Your task to perform on an android device: choose inbox layout in the gmail app Image 0: 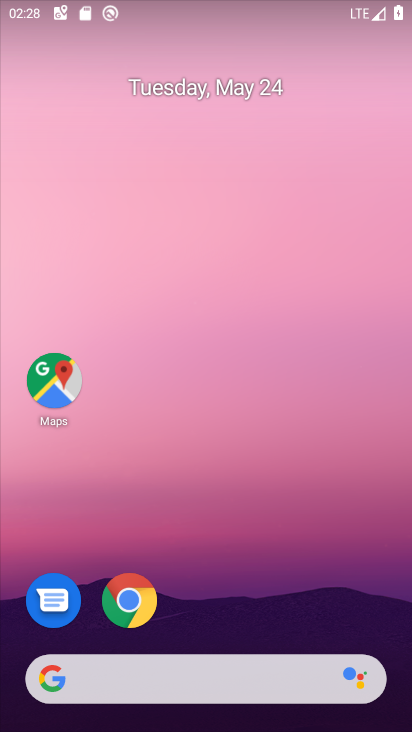
Step 0: drag from (272, 507) to (259, 218)
Your task to perform on an android device: choose inbox layout in the gmail app Image 1: 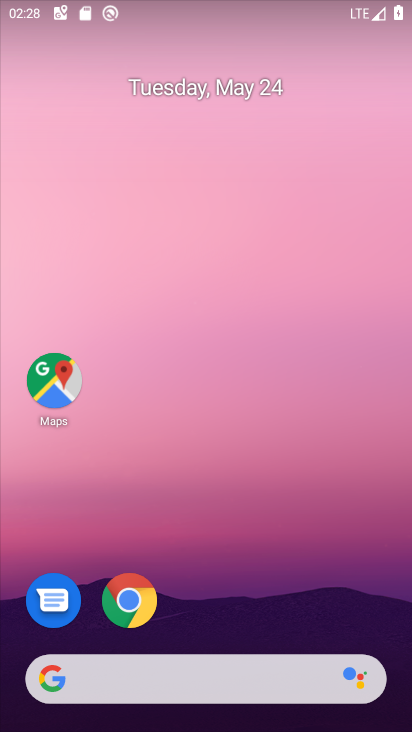
Step 1: drag from (232, 575) to (226, 198)
Your task to perform on an android device: choose inbox layout in the gmail app Image 2: 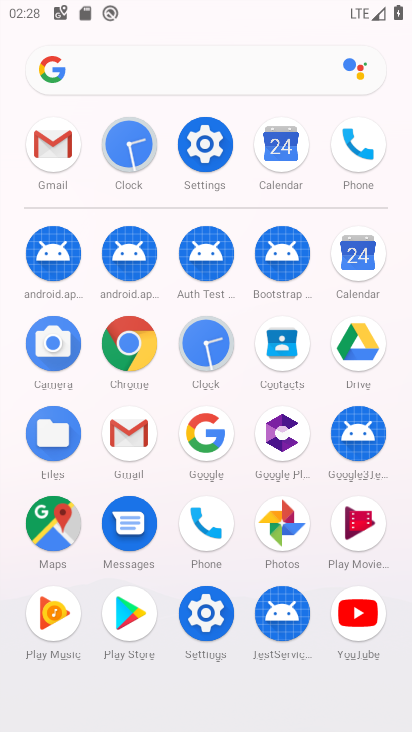
Step 2: click (121, 153)
Your task to perform on an android device: choose inbox layout in the gmail app Image 3: 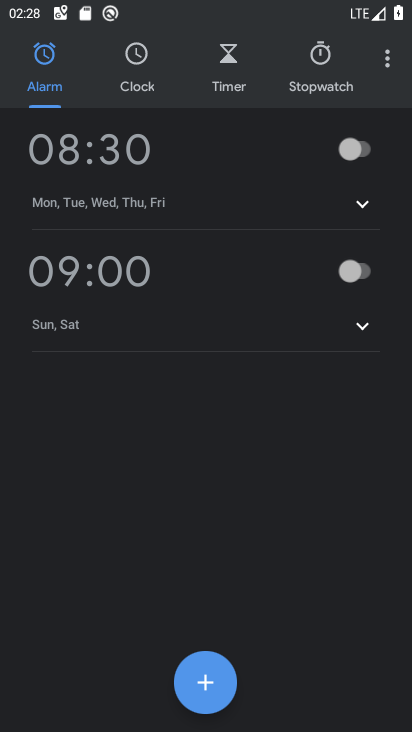
Step 3: press home button
Your task to perform on an android device: choose inbox layout in the gmail app Image 4: 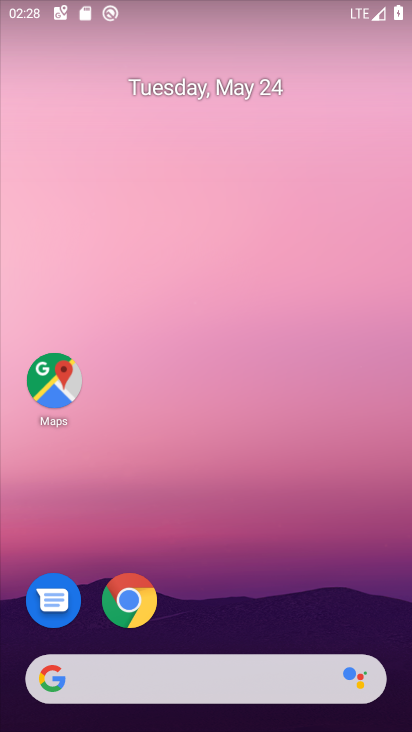
Step 4: drag from (246, 585) to (248, 350)
Your task to perform on an android device: choose inbox layout in the gmail app Image 5: 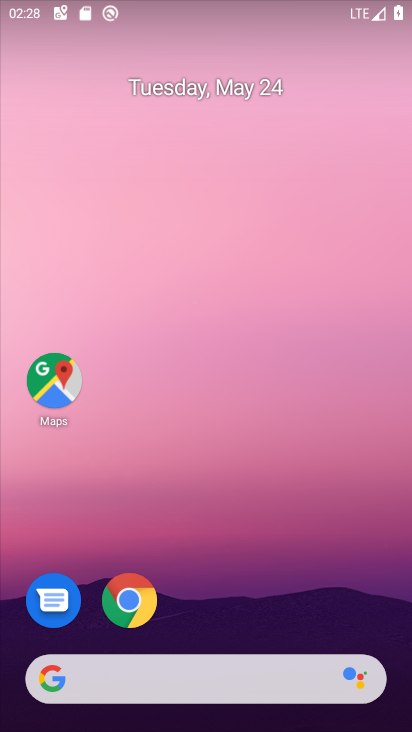
Step 5: drag from (267, 539) to (336, 99)
Your task to perform on an android device: choose inbox layout in the gmail app Image 6: 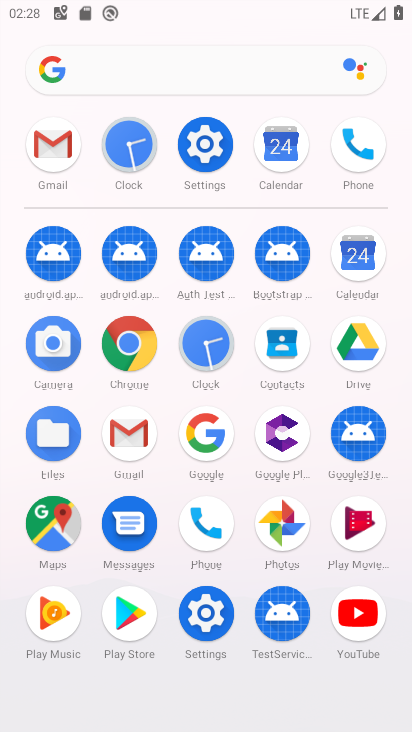
Step 6: click (41, 158)
Your task to perform on an android device: choose inbox layout in the gmail app Image 7: 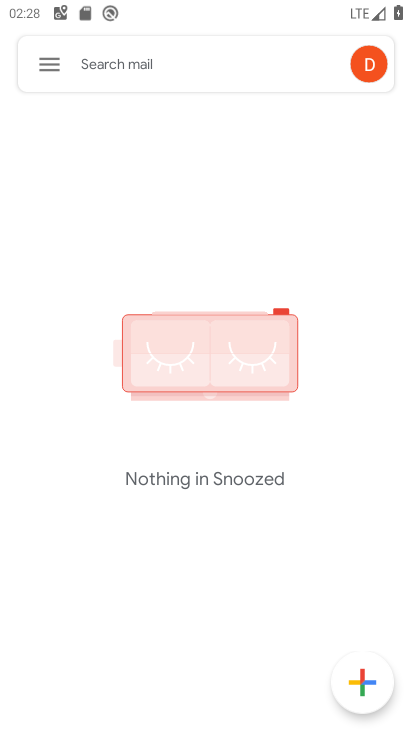
Step 7: click (65, 68)
Your task to perform on an android device: choose inbox layout in the gmail app Image 8: 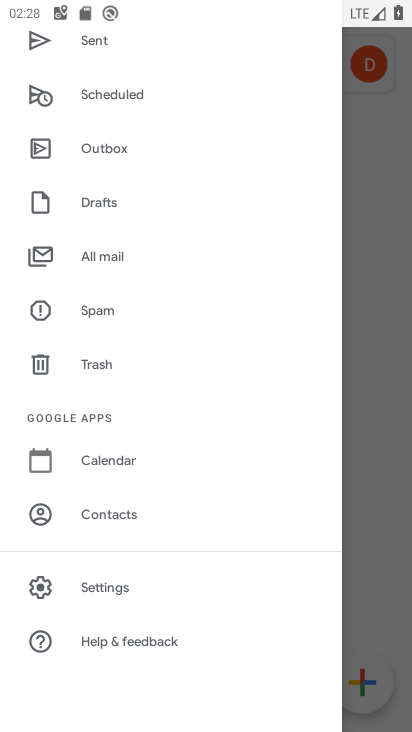
Step 8: drag from (128, 97) to (139, 429)
Your task to perform on an android device: choose inbox layout in the gmail app Image 9: 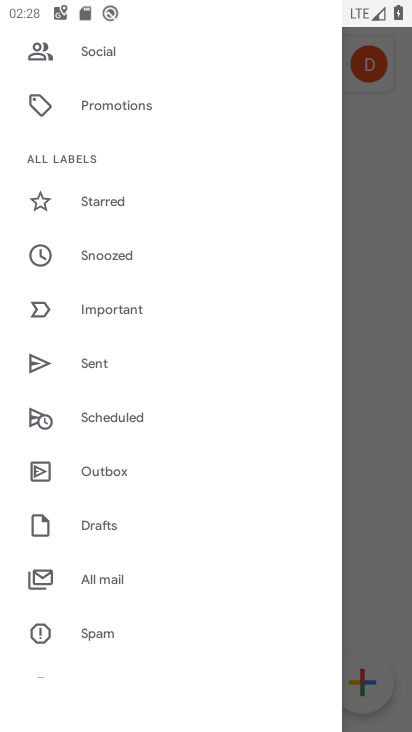
Step 9: drag from (165, 197) to (190, 488)
Your task to perform on an android device: choose inbox layout in the gmail app Image 10: 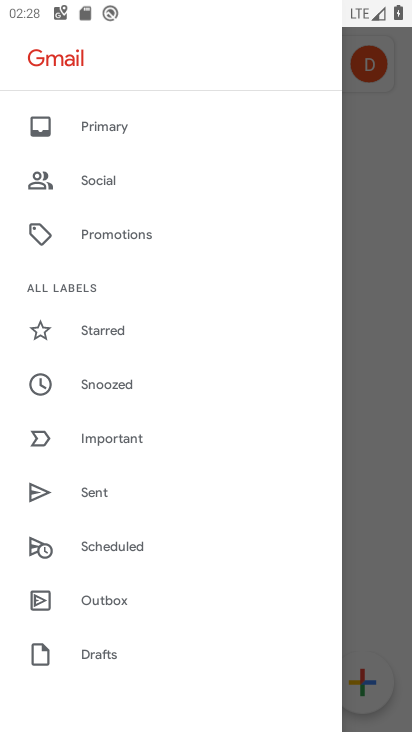
Step 10: drag from (181, 520) to (154, 282)
Your task to perform on an android device: choose inbox layout in the gmail app Image 11: 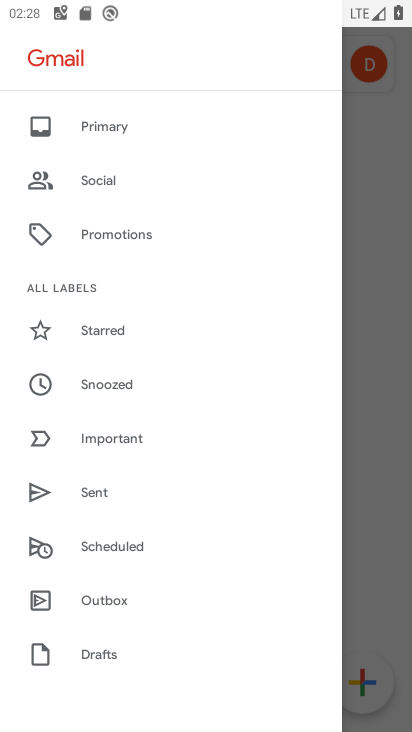
Step 11: drag from (199, 557) to (207, 187)
Your task to perform on an android device: choose inbox layout in the gmail app Image 12: 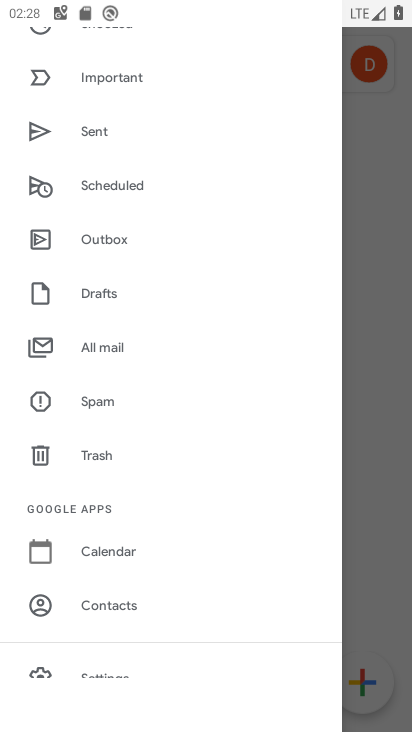
Step 12: drag from (190, 616) to (204, 258)
Your task to perform on an android device: choose inbox layout in the gmail app Image 13: 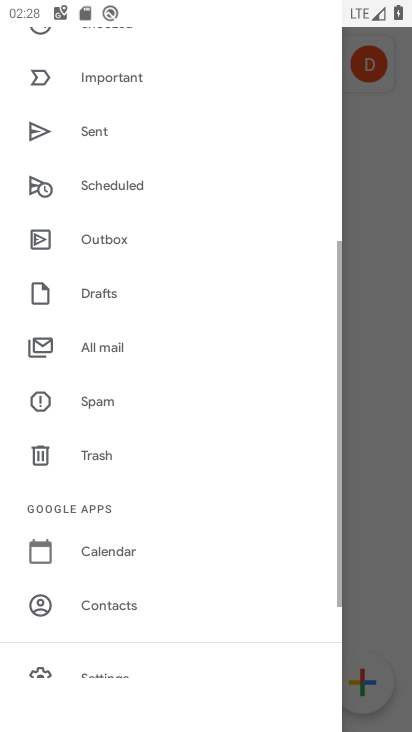
Step 13: drag from (195, 113) to (212, 462)
Your task to perform on an android device: choose inbox layout in the gmail app Image 14: 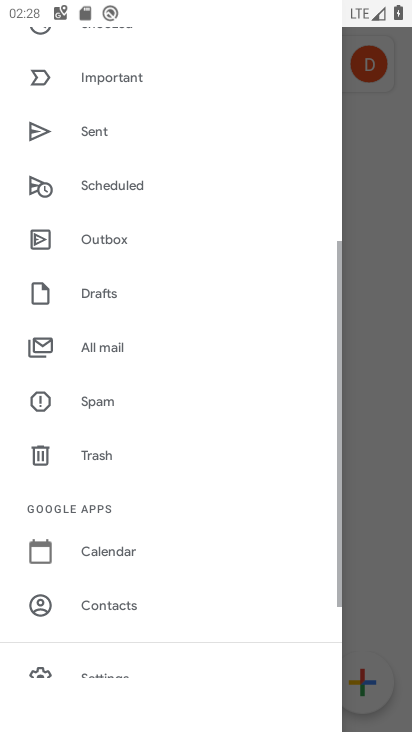
Step 14: drag from (263, 129) to (251, 569)
Your task to perform on an android device: choose inbox layout in the gmail app Image 15: 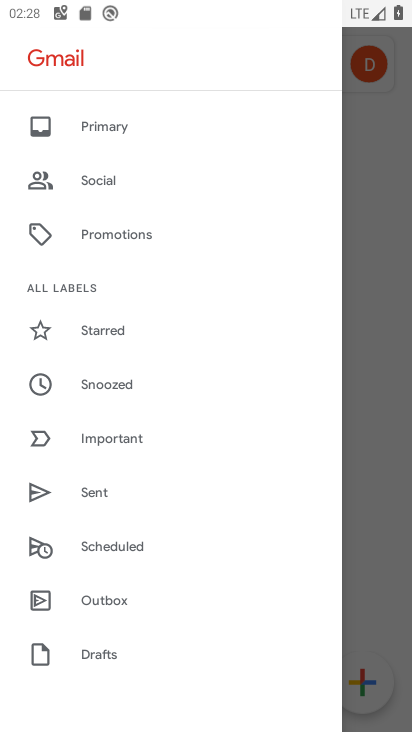
Step 15: drag from (225, 217) to (205, 530)
Your task to perform on an android device: choose inbox layout in the gmail app Image 16: 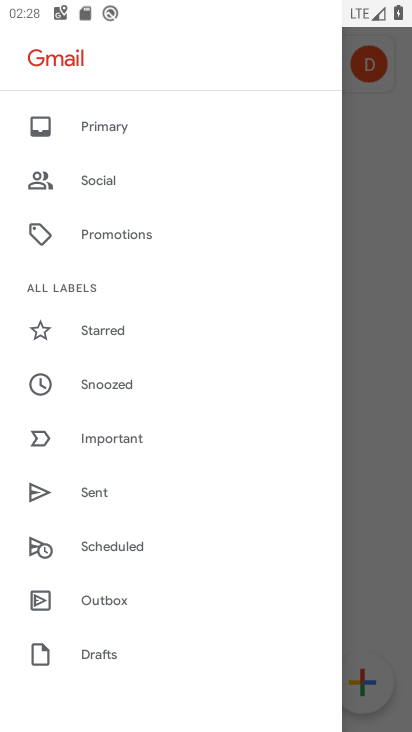
Step 16: click (198, 120)
Your task to perform on an android device: choose inbox layout in the gmail app Image 17: 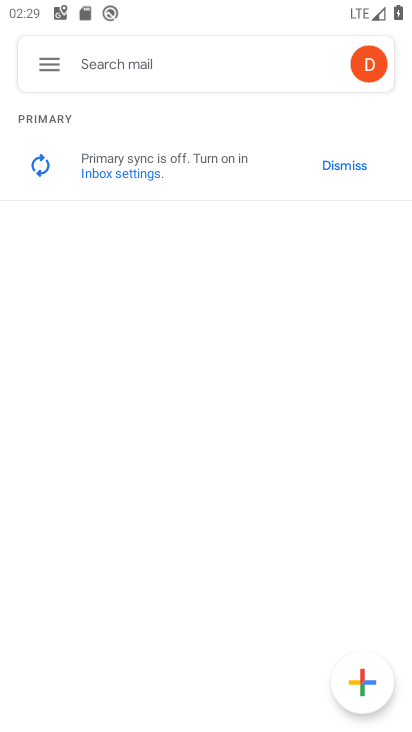
Step 17: task complete